Your task to perform on an android device: How do I get to the nearest JCPenney? Image 0: 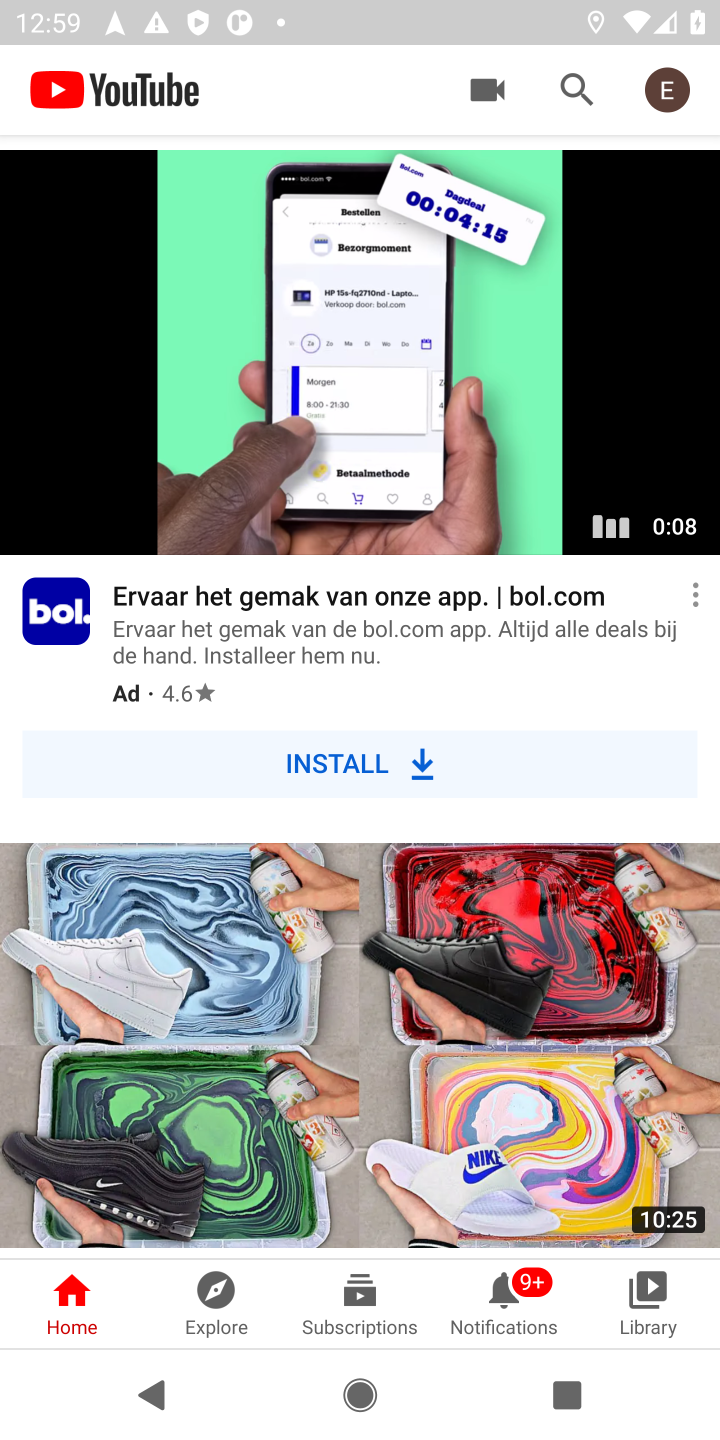
Step 0: press home button
Your task to perform on an android device: How do I get to the nearest JCPenney? Image 1: 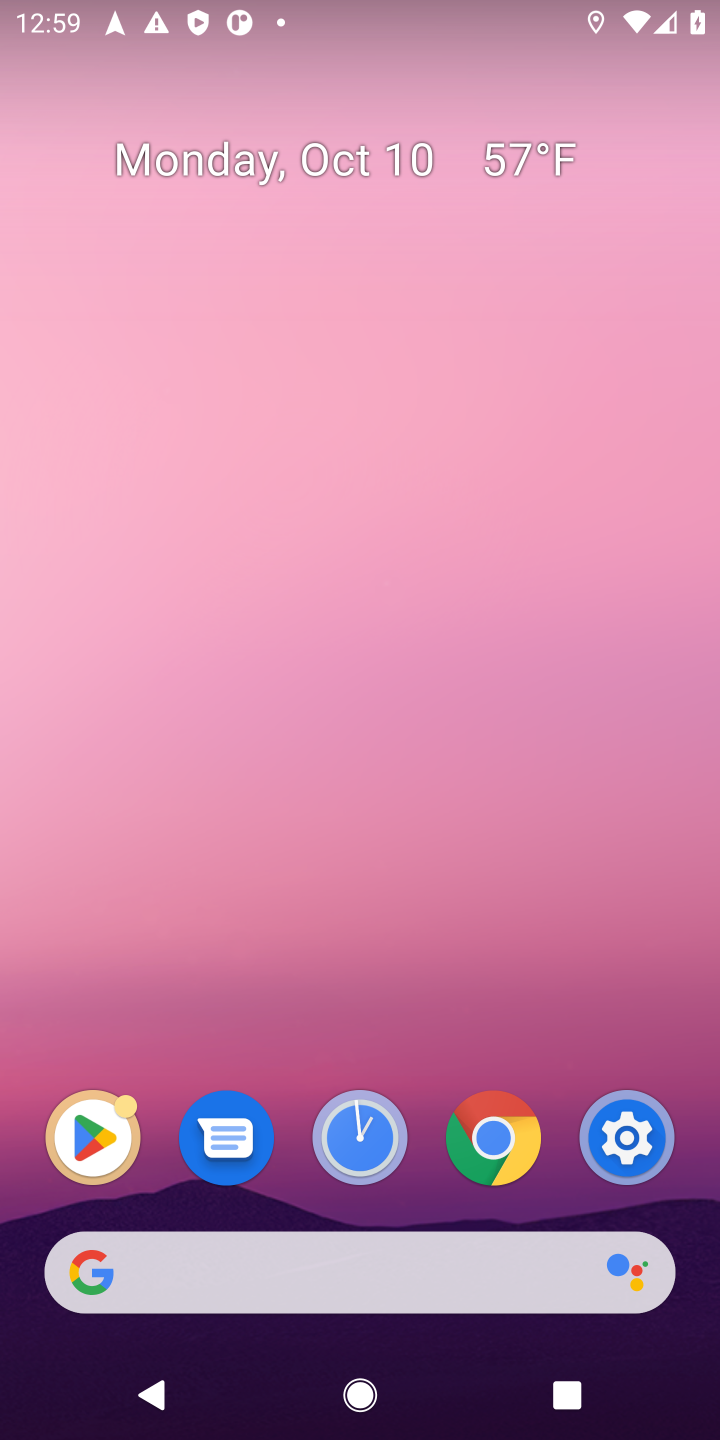
Step 1: click (294, 1259)
Your task to perform on an android device: How do I get to the nearest JCPenney? Image 2: 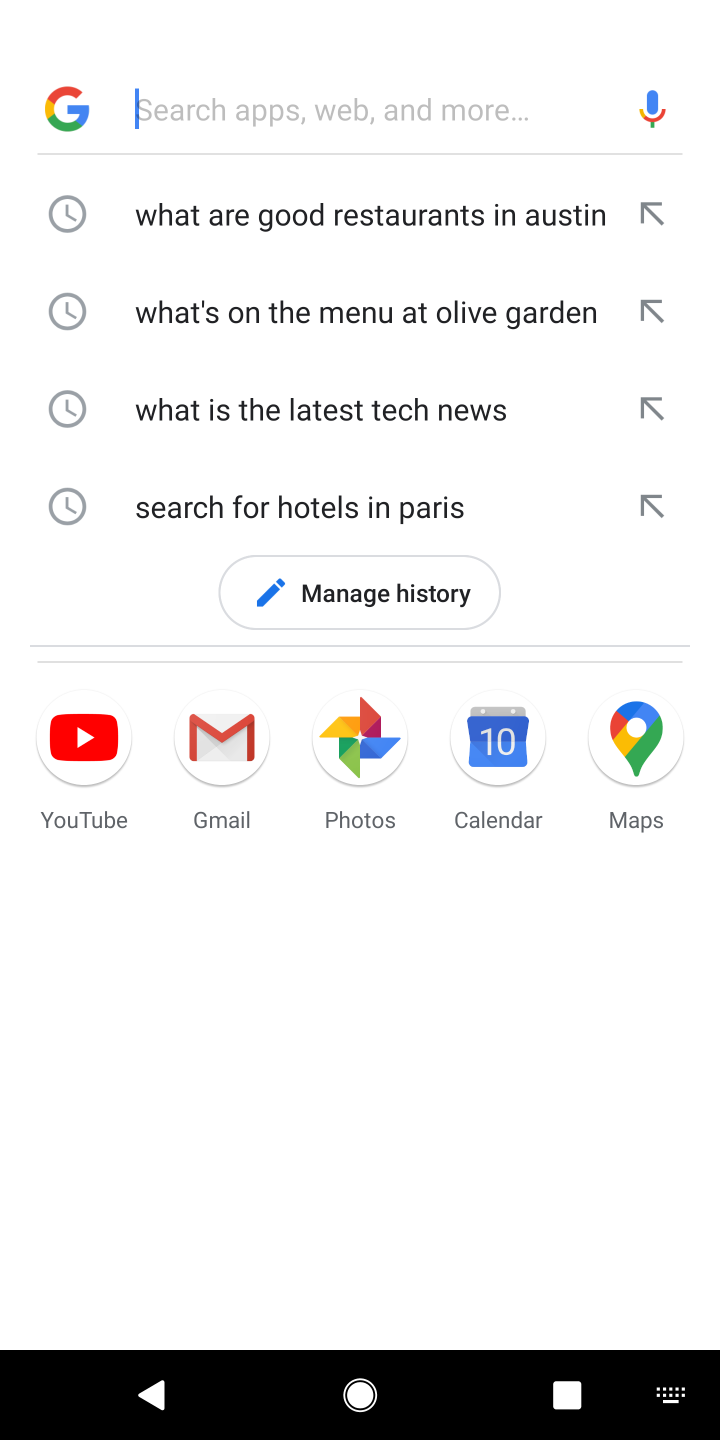
Step 2: type "How do I get to the nearest JCPenney?"
Your task to perform on an android device: How do I get to the nearest JCPenney? Image 3: 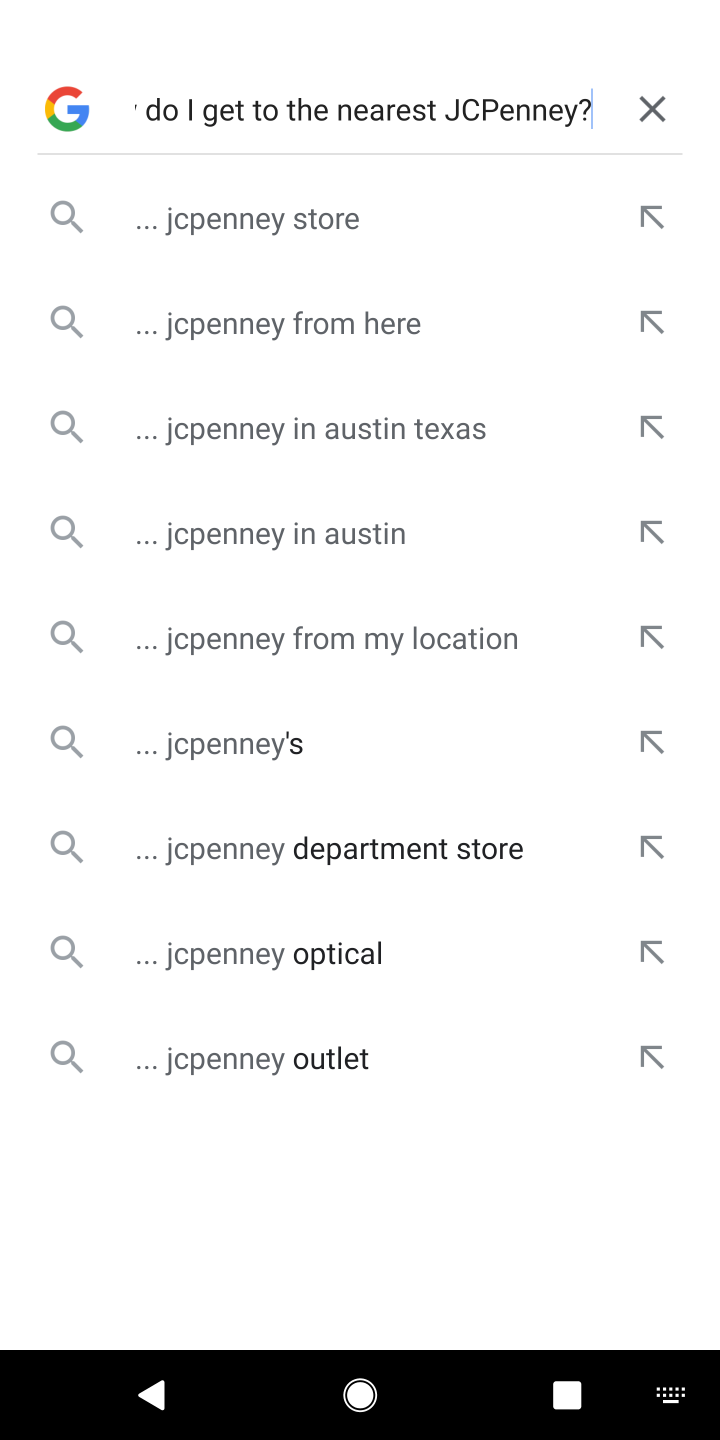
Step 3: click (262, 206)
Your task to perform on an android device: How do I get to the nearest JCPenney? Image 4: 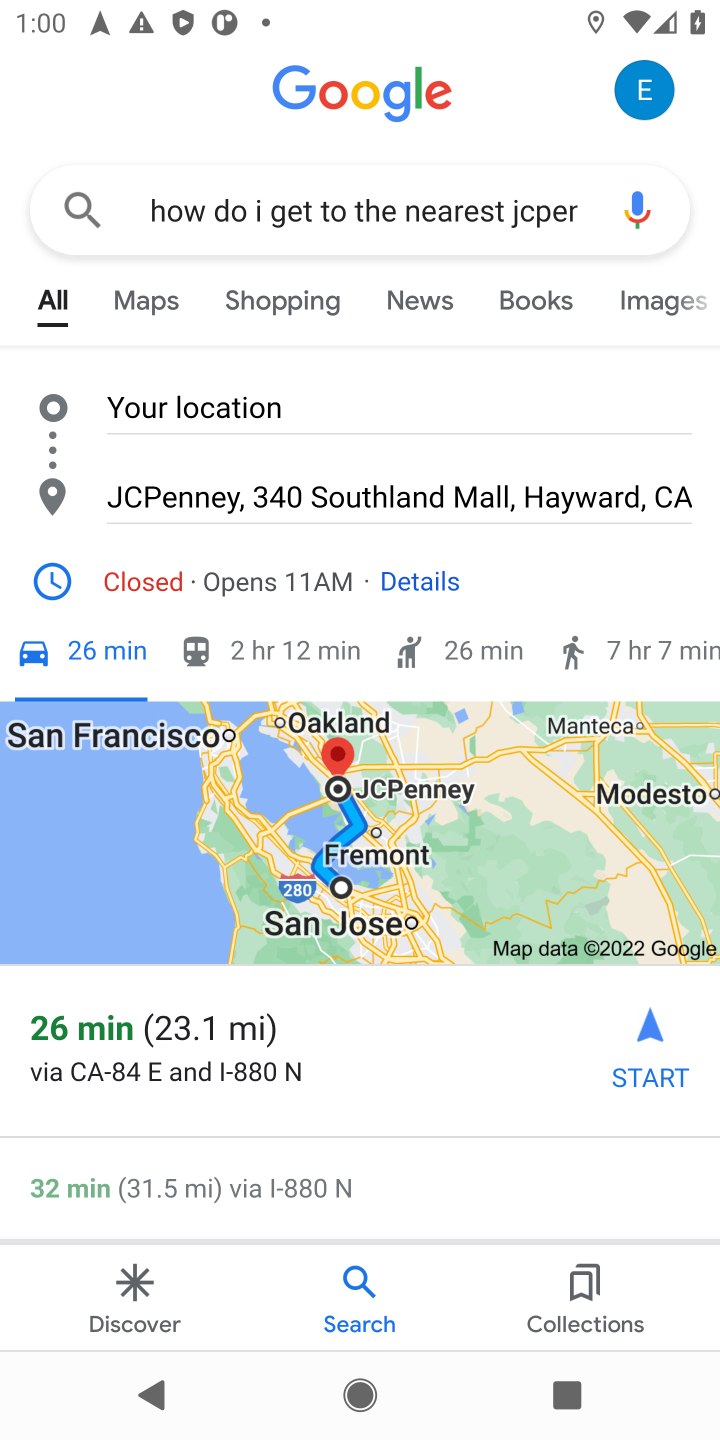
Step 4: task complete